Your task to perform on an android device: delete the emails in spam in the gmail app Image 0: 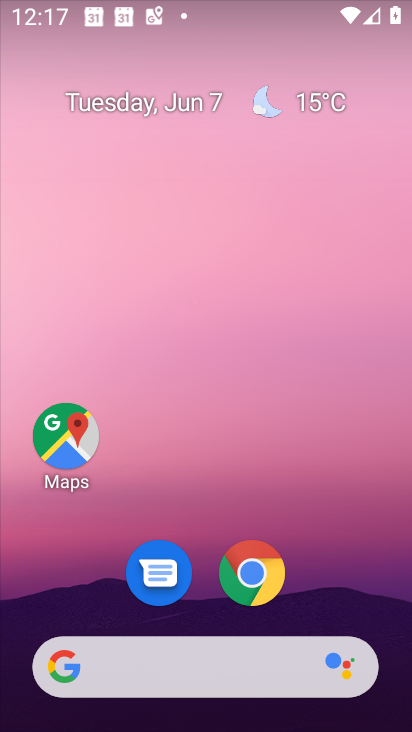
Step 0: drag from (326, 597) to (326, 113)
Your task to perform on an android device: delete the emails in spam in the gmail app Image 1: 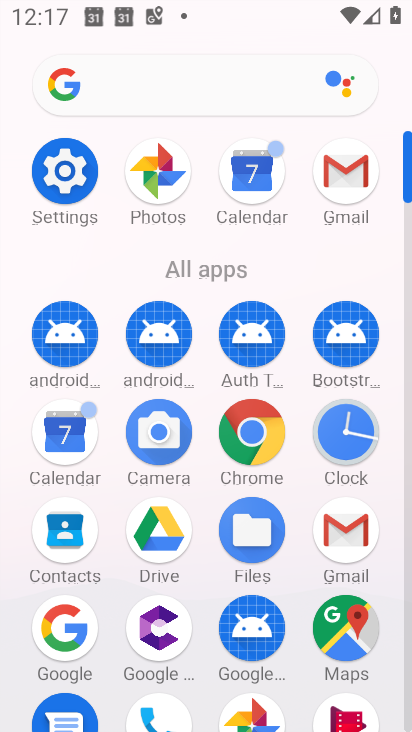
Step 1: click (334, 174)
Your task to perform on an android device: delete the emails in spam in the gmail app Image 2: 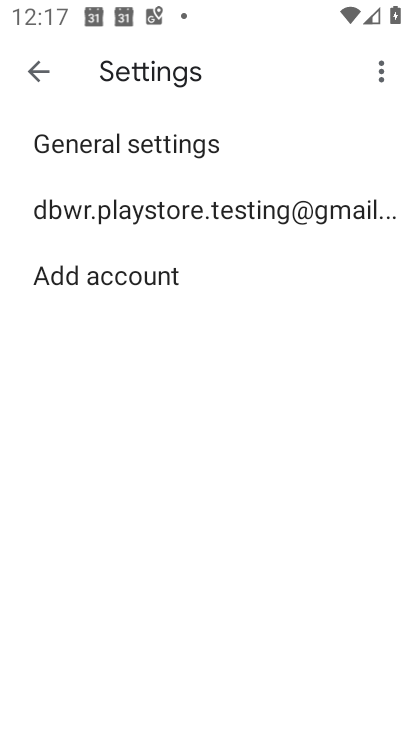
Step 2: click (35, 73)
Your task to perform on an android device: delete the emails in spam in the gmail app Image 3: 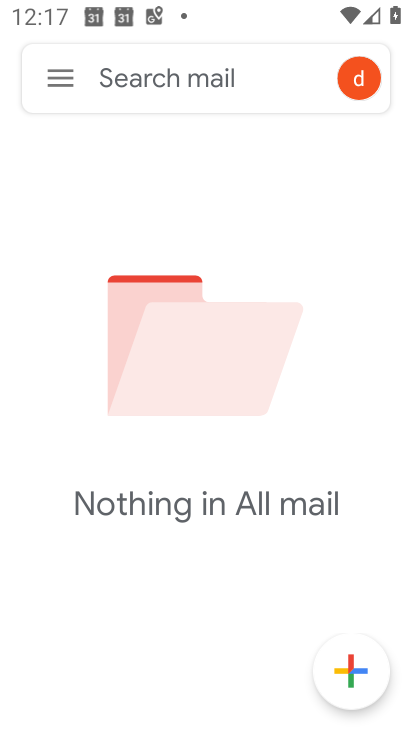
Step 3: click (56, 74)
Your task to perform on an android device: delete the emails in spam in the gmail app Image 4: 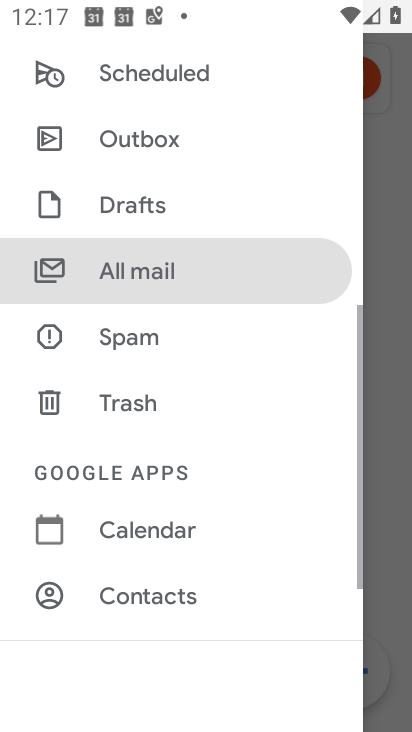
Step 4: click (107, 338)
Your task to perform on an android device: delete the emails in spam in the gmail app Image 5: 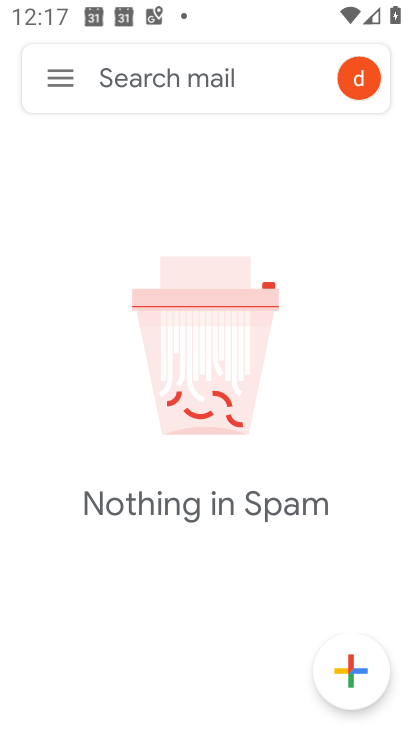
Step 5: task complete